Your task to perform on an android device: make emails show in primary in the gmail app Image 0: 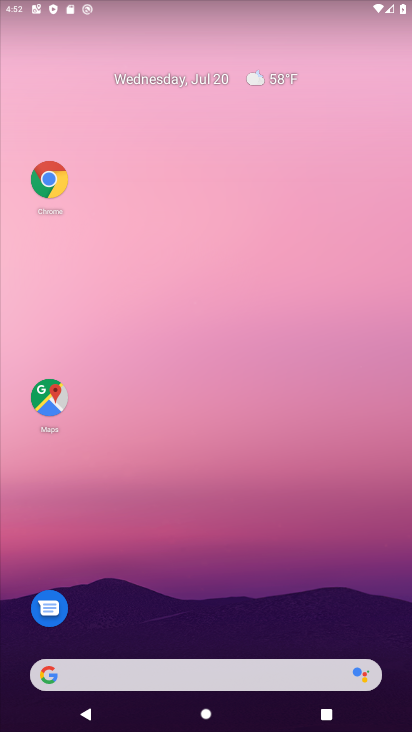
Step 0: drag from (227, 632) to (72, 68)
Your task to perform on an android device: make emails show in primary in the gmail app Image 1: 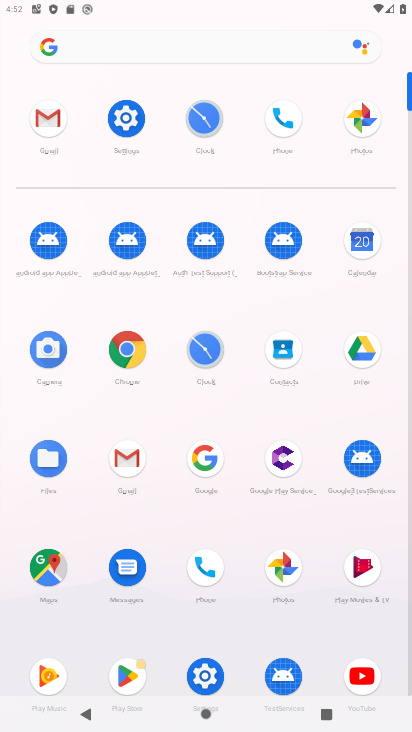
Step 1: click (130, 448)
Your task to perform on an android device: make emails show in primary in the gmail app Image 2: 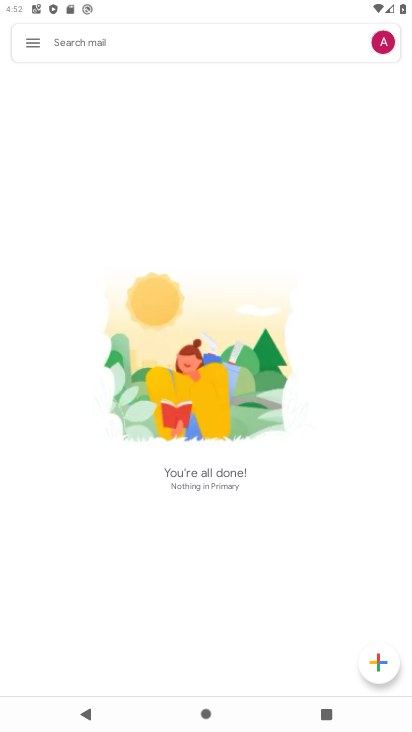
Step 2: click (26, 43)
Your task to perform on an android device: make emails show in primary in the gmail app Image 3: 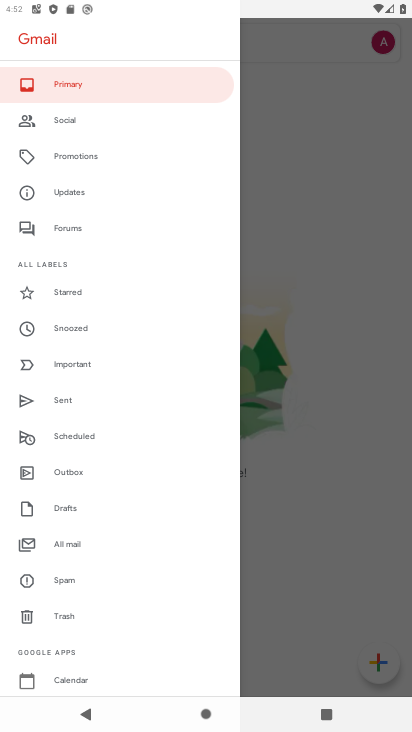
Step 3: click (43, 82)
Your task to perform on an android device: make emails show in primary in the gmail app Image 4: 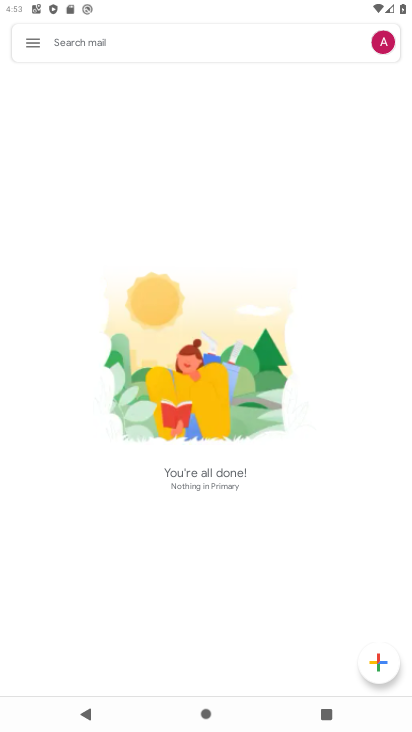
Step 4: task complete